Your task to perform on an android device: Show me the alarms in the clock app Image 0: 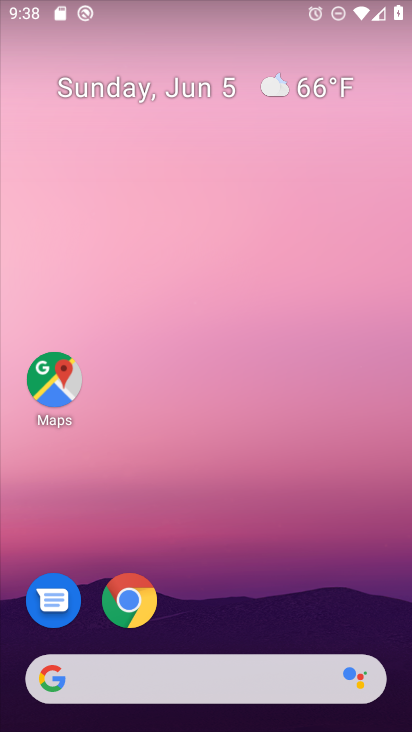
Step 0: drag from (334, 606) to (282, 108)
Your task to perform on an android device: Show me the alarms in the clock app Image 1: 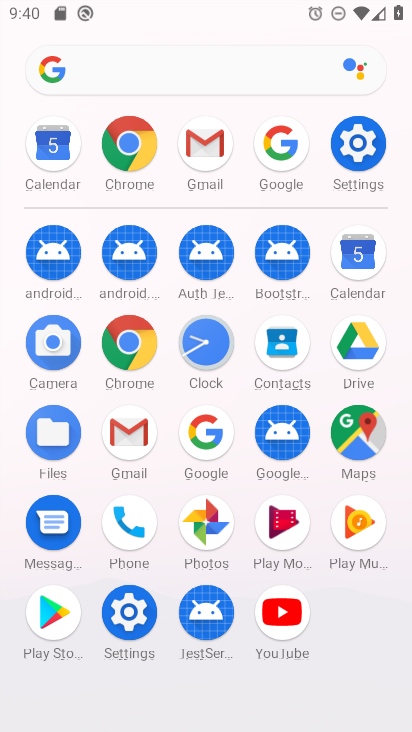
Step 1: click (205, 359)
Your task to perform on an android device: Show me the alarms in the clock app Image 2: 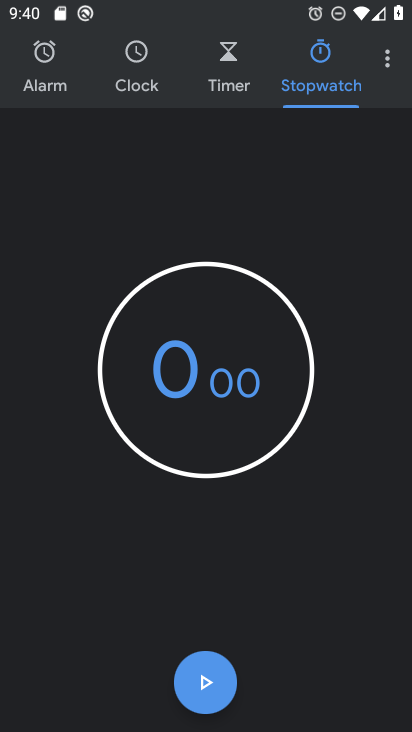
Step 2: click (47, 71)
Your task to perform on an android device: Show me the alarms in the clock app Image 3: 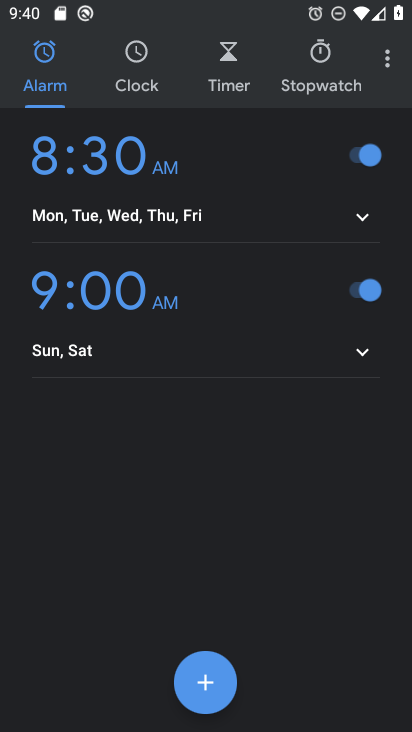
Step 3: task complete